Your task to perform on an android device: find photos in the google photos app Image 0: 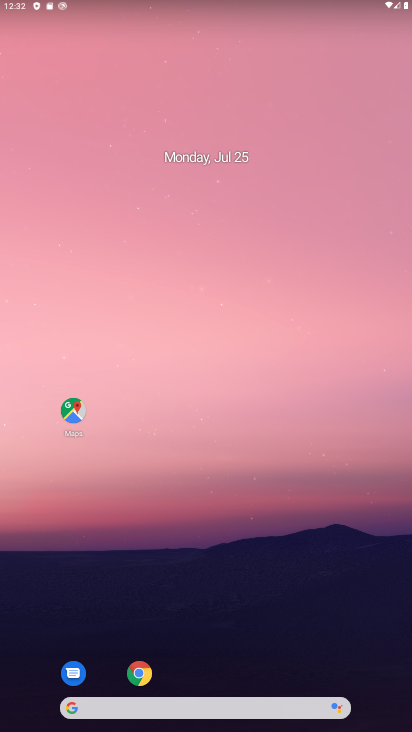
Step 0: drag from (191, 674) to (145, 25)
Your task to perform on an android device: find photos in the google photos app Image 1: 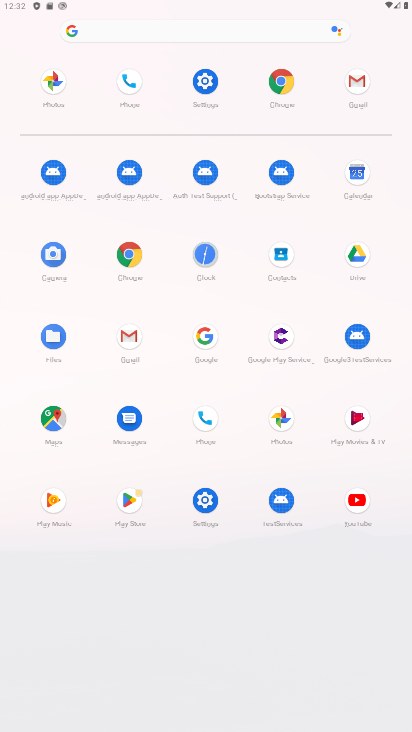
Step 1: click (54, 74)
Your task to perform on an android device: find photos in the google photos app Image 2: 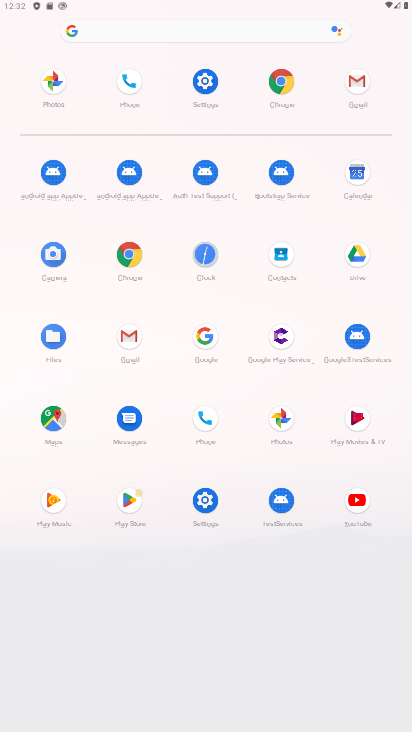
Step 2: click (54, 74)
Your task to perform on an android device: find photos in the google photos app Image 3: 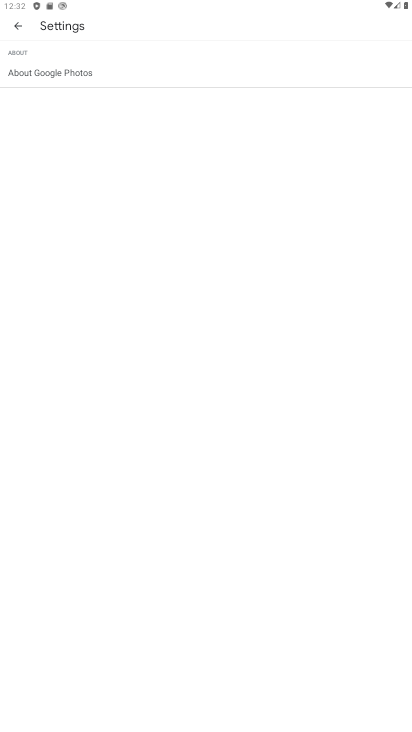
Step 3: click (19, 23)
Your task to perform on an android device: find photos in the google photos app Image 4: 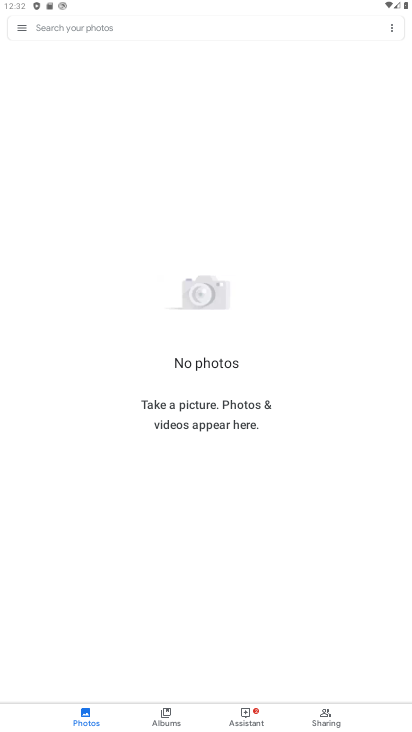
Step 4: click (108, 26)
Your task to perform on an android device: find photos in the google photos app Image 5: 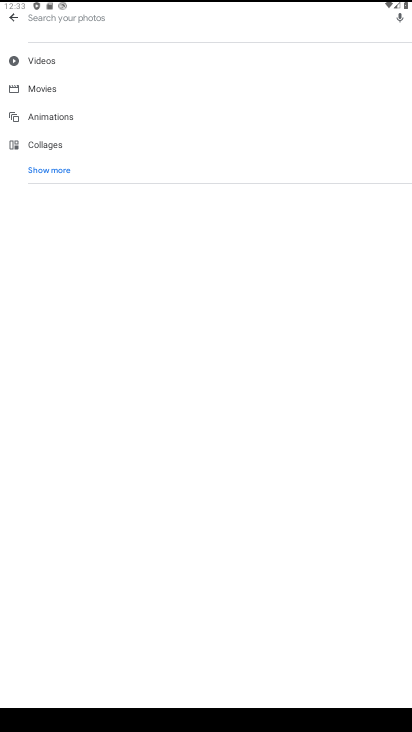
Step 5: task complete